Your task to perform on an android device: find which apps use the phone's location Image 0: 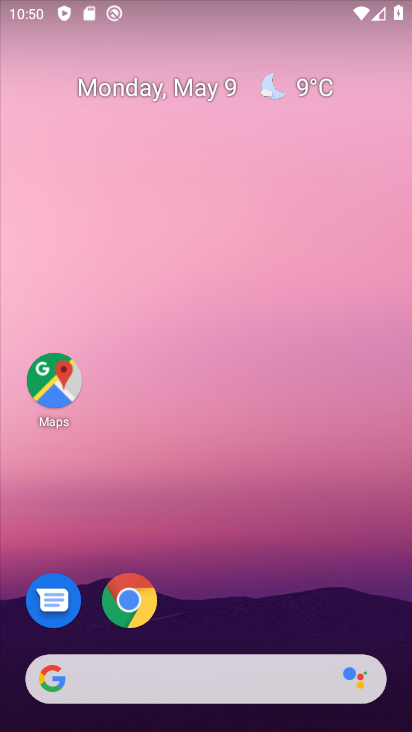
Step 0: drag from (359, 526) to (339, 122)
Your task to perform on an android device: find which apps use the phone's location Image 1: 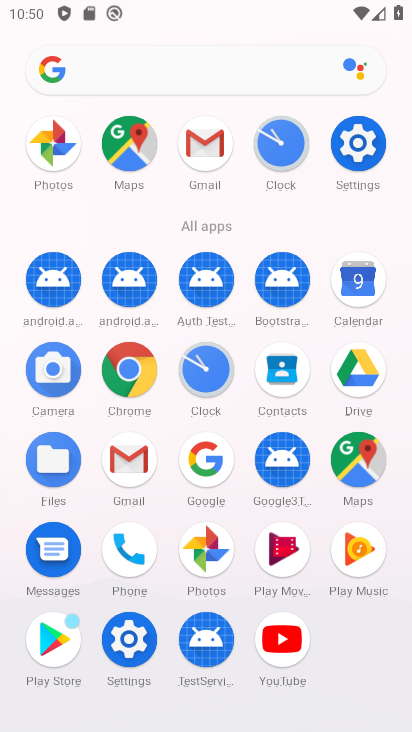
Step 1: click (356, 145)
Your task to perform on an android device: find which apps use the phone's location Image 2: 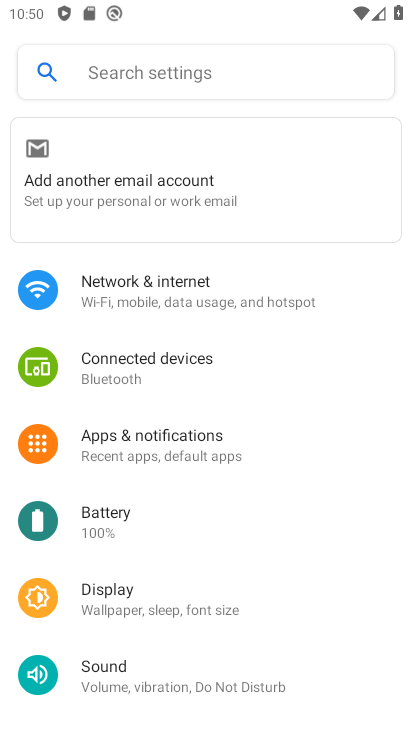
Step 2: drag from (340, 673) to (282, 224)
Your task to perform on an android device: find which apps use the phone's location Image 3: 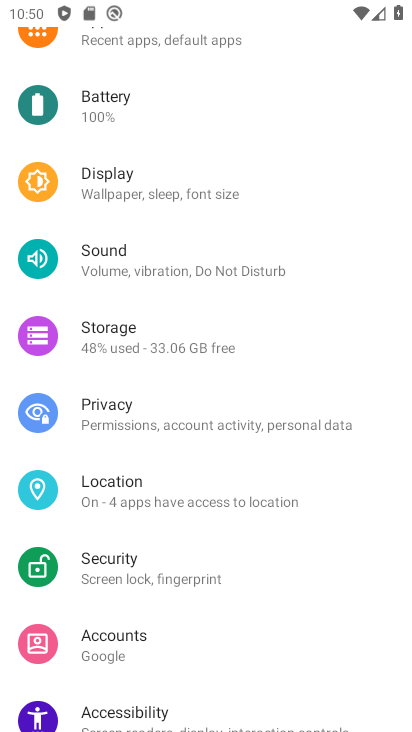
Step 3: click (182, 506)
Your task to perform on an android device: find which apps use the phone's location Image 4: 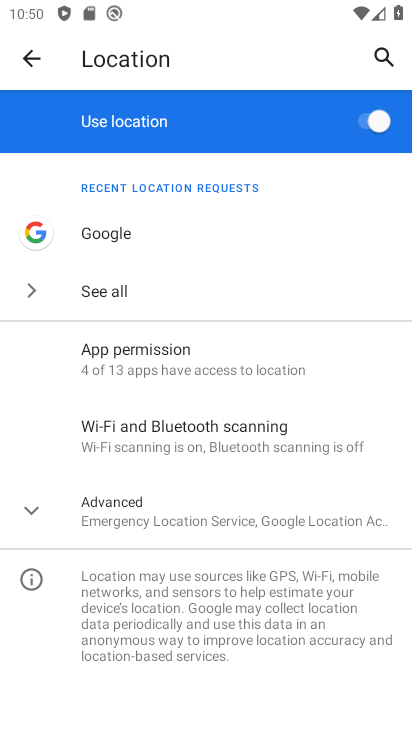
Step 4: click (32, 294)
Your task to perform on an android device: find which apps use the phone's location Image 5: 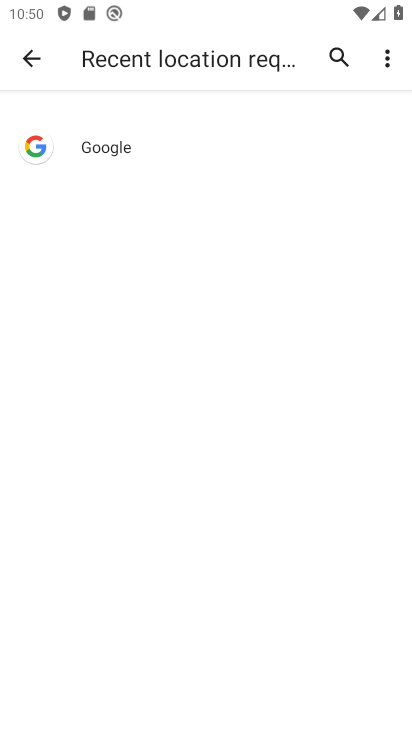
Step 5: task complete